Your task to perform on an android device: Go to calendar. Show me events next week Image 0: 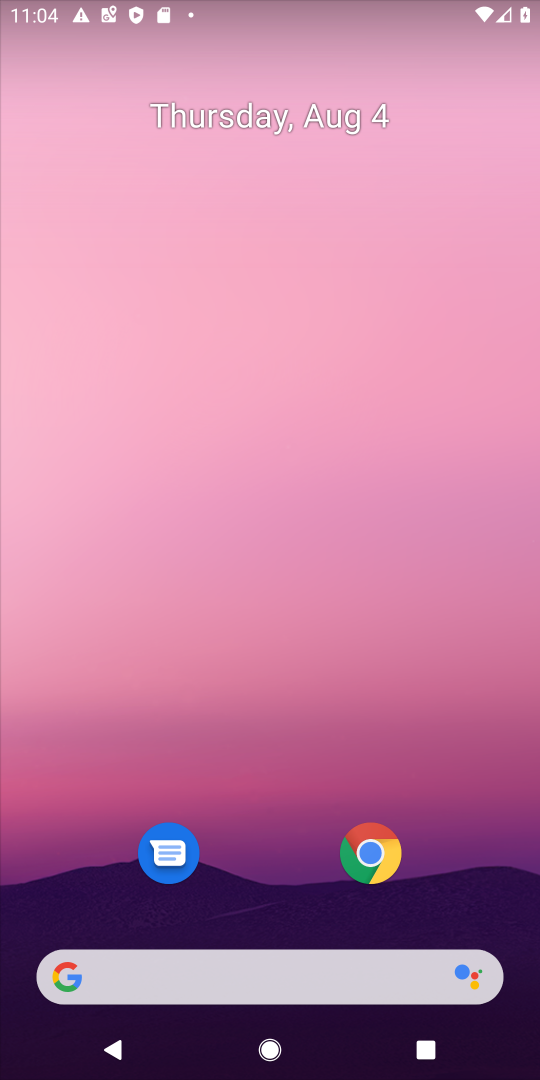
Step 0: drag from (423, 669) to (380, 232)
Your task to perform on an android device: Go to calendar. Show me events next week Image 1: 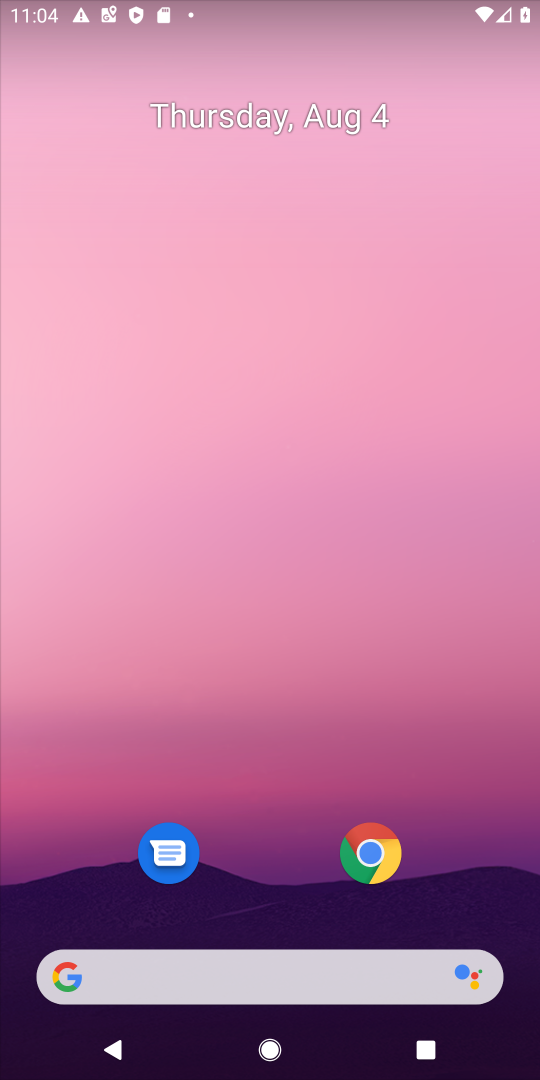
Step 1: drag from (506, 913) to (503, 113)
Your task to perform on an android device: Go to calendar. Show me events next week Image 2: 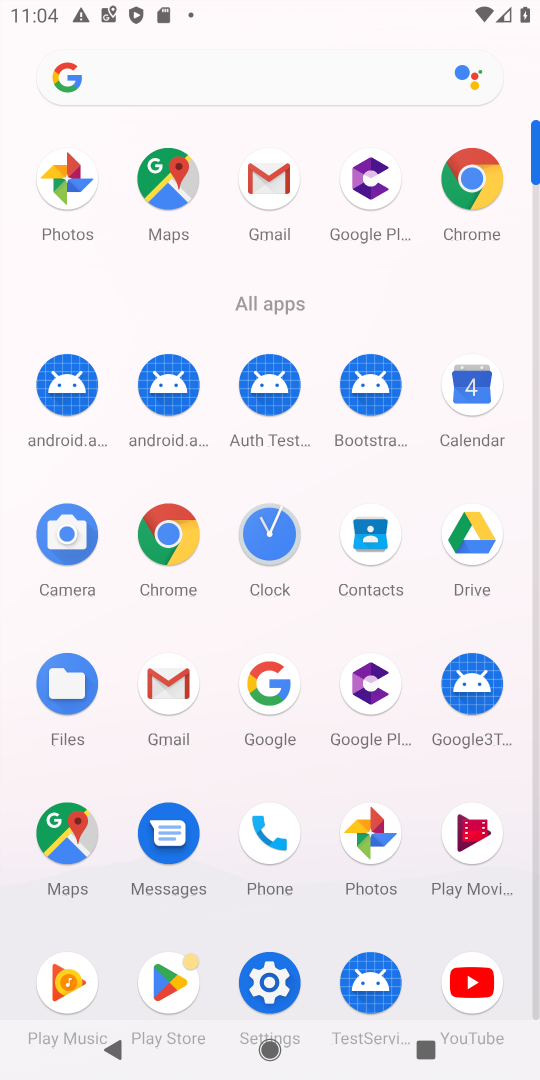
Step 2: click (474, 392)
Your task to perform on an android device: Go to calendar. Show me events next week Image 3: 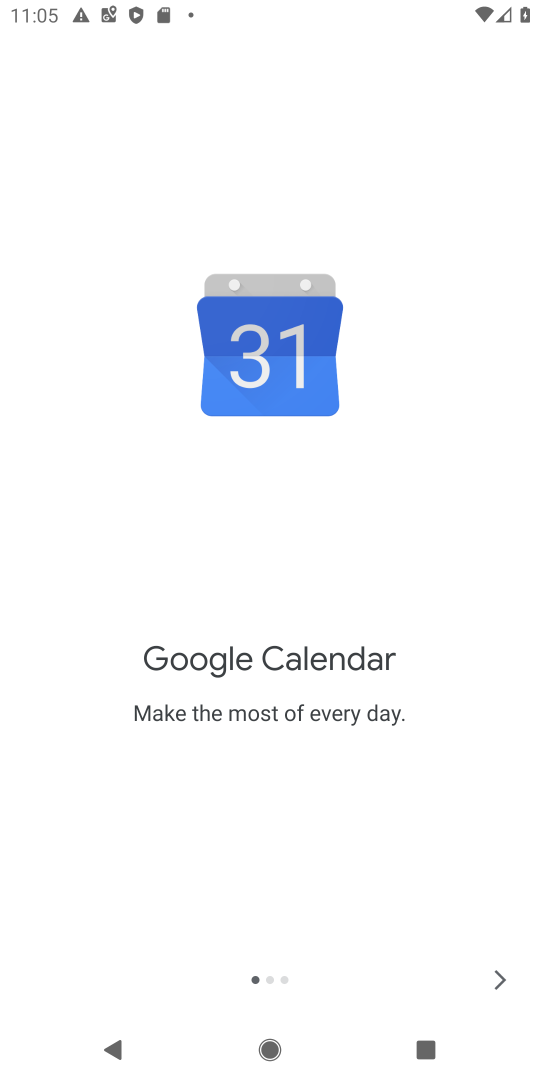
Step 3: click (498, 977)
Your task to perform on an android device: Go to calendar. Show me events next week Image 4: 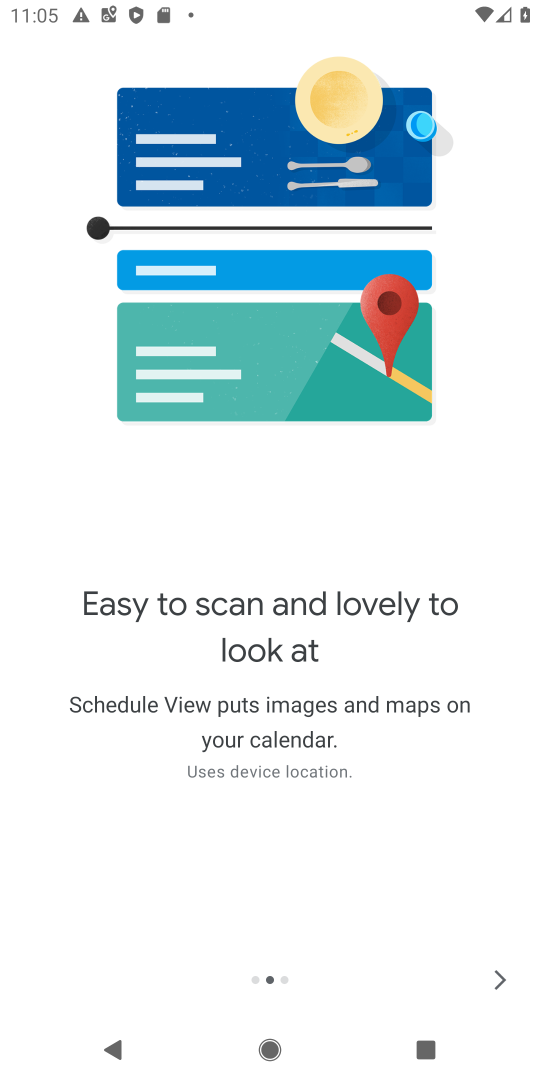
Step 4: click (498, 977)
Your task to perform on an android device: Go to calendar. Show me events next week Image 5: 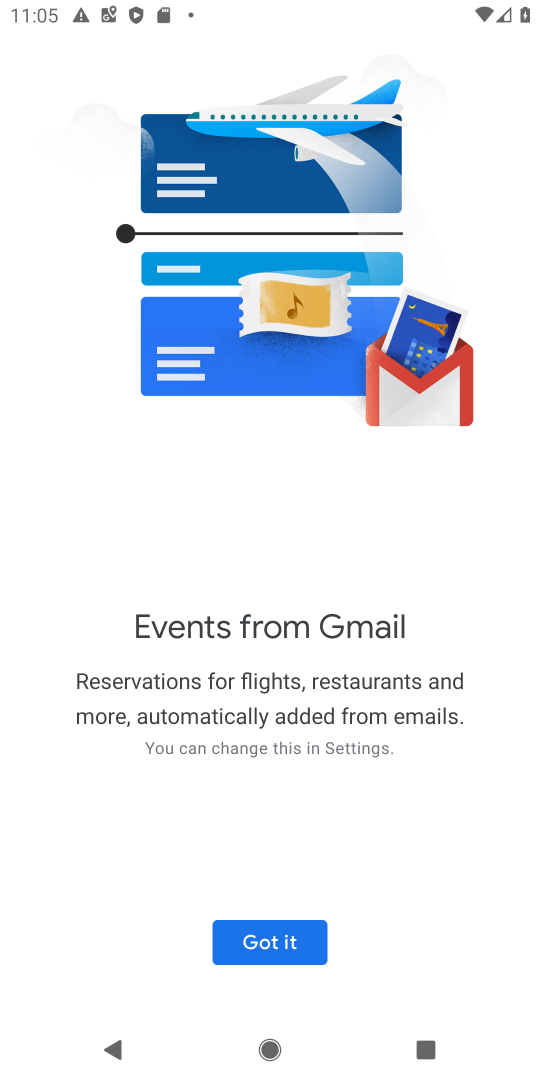
Step 5: click (281, 950)
Your task to perform on an android device: Go to calendar. Show me events next week Image 6: 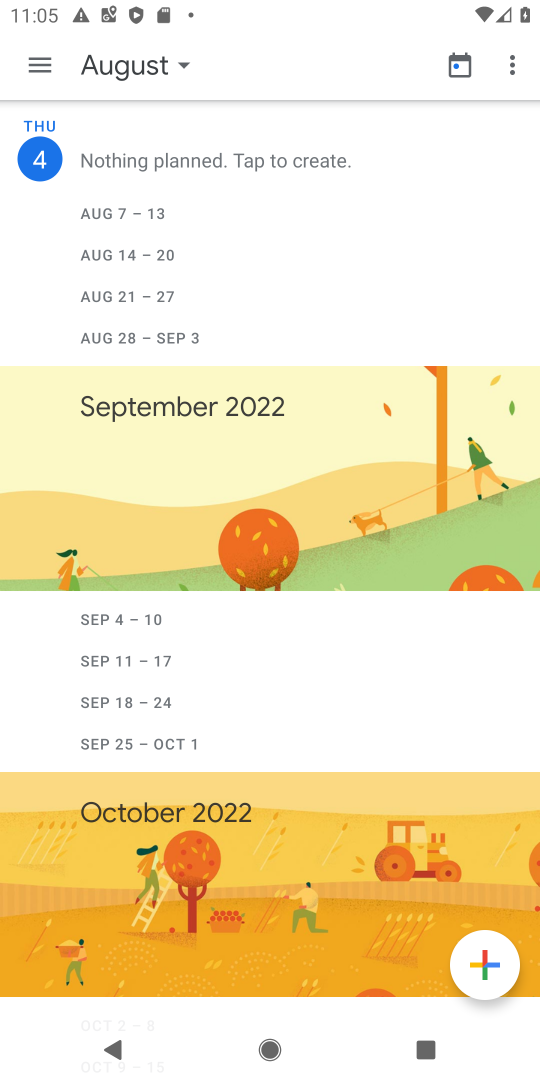
Step 6: click (39, 60)
Your task to perform on an android device: Go to calendar. Show me events next week Image 7: 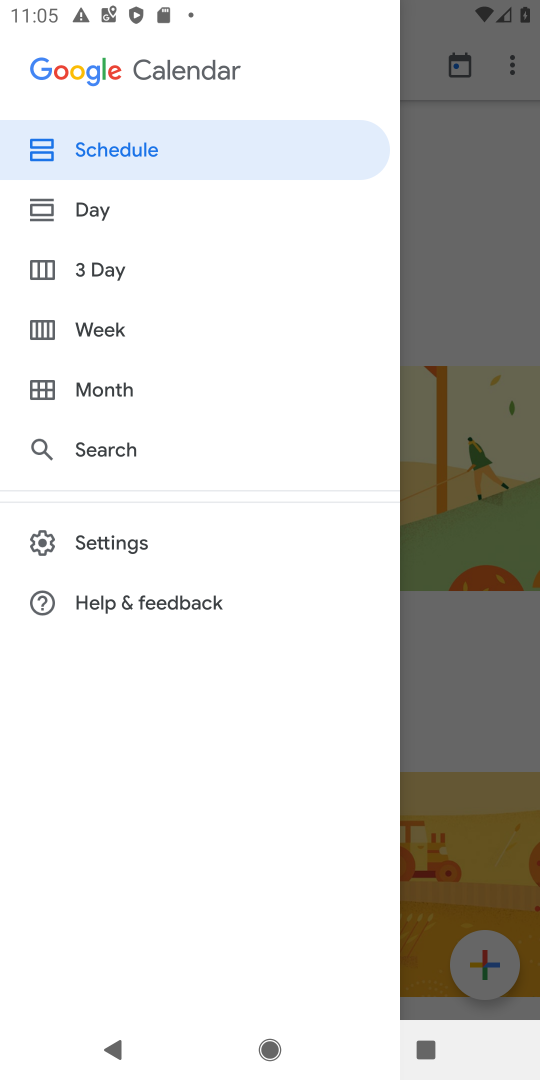
Step 7: click (115, 324)
Your task to perform on an android device: Go to calendar. Show me events next week Image 8: 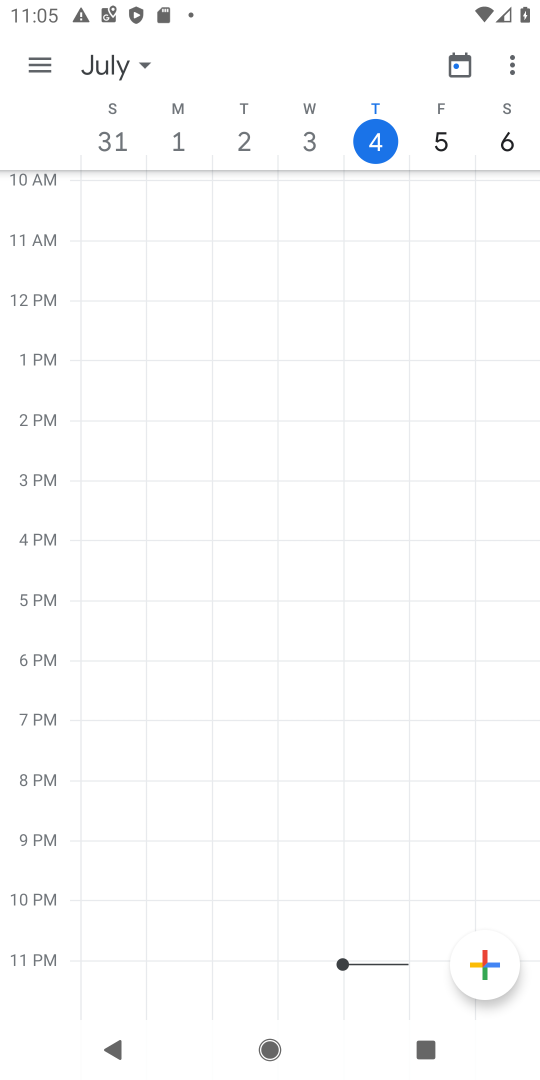
Step 8: task complete